Your task to perform on an android device: toggle improve location accuracy Image 0: 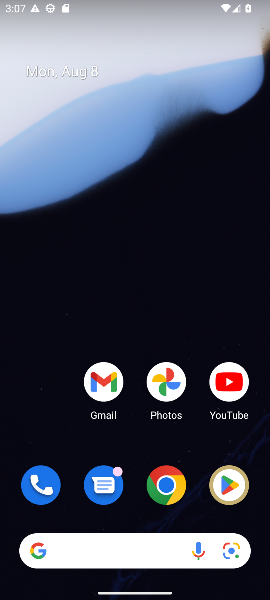
Step 0: drag from (172, 313) to (157, 3)
Your task to perform on an android device: toggle improve location accuracy Image 1: 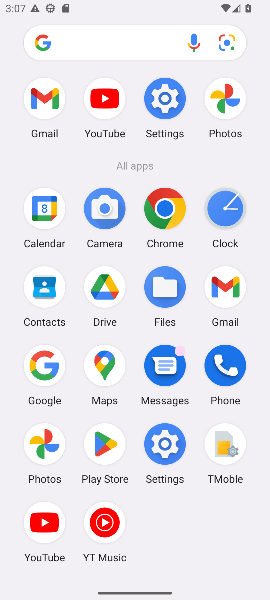
Step 1: click (165, 108)
Your task to perform on an android device: toggle improve location accuracy Image 2: 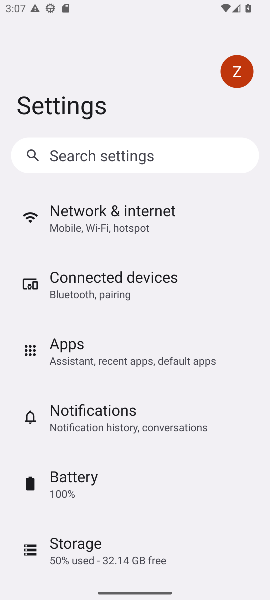
Step 2: drag from (113, 460) to (131, 101)
Your task to perform on an android device: toggle improve location accuracy Image 3: 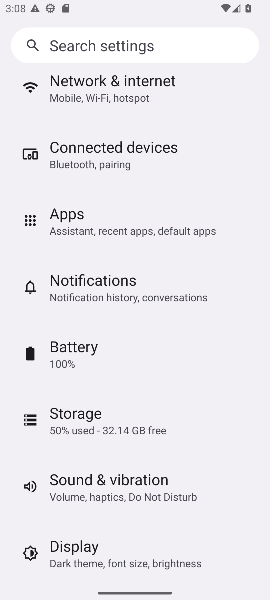
Step 3: drag from (140, 476) to (167, 234)
Your task to perform on an android device: toggle improve location accuracy Image 4: 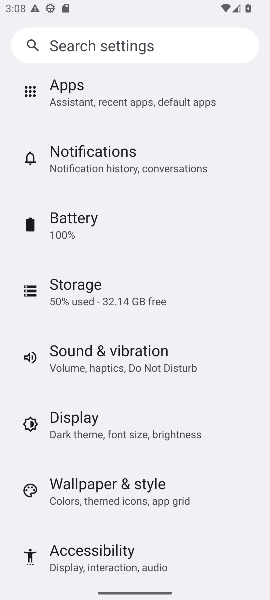
Step 4: drag from (143, 459) to (174, 211)
Your task to perform on an android device: toggle improve location accuracy Image 5: 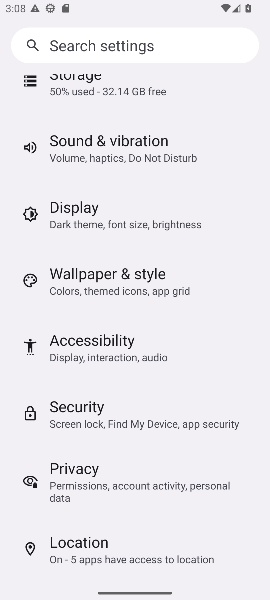
Step 5: click (120, 554)
Your task to perform on an android device: toggle improve location accuracy Image 6: 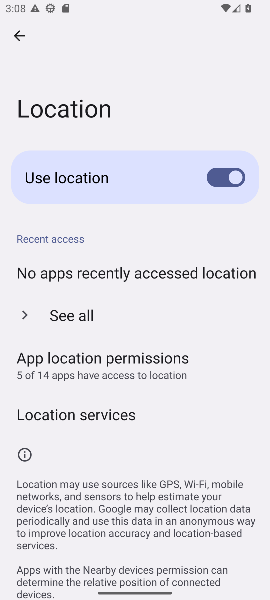
Step 6: task complete